Your task to perform on an android device: Show me some nice wallpapers for my tablet Image 0: 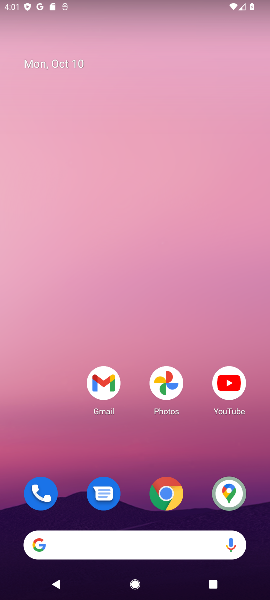
Step 0: click (179, 547)
Your task to perform on an android device: Show me some nice wallpapers for my tablet Image 1: 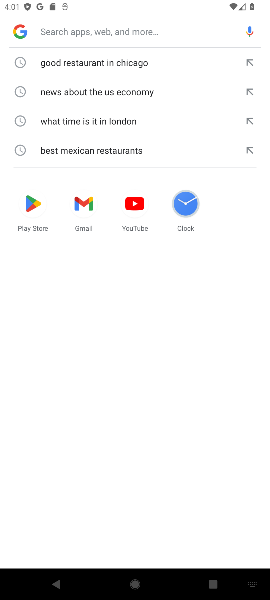
Step 1: type "some nice wallpapers for my tablet"
Your task to perform on an android device: Show me some nice wallpapers for my tablet Image 2: 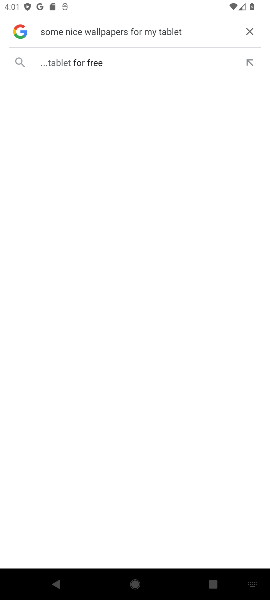
Step 2: click (133, 61)
Your task to perform on an android device: Show me some nice wallpapers for my tablet Image 3: 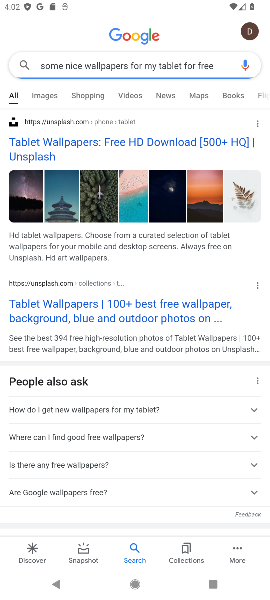
Step 3: task complete